Your task to perform on an android device: add a label to a message in the gmail app Image 0: 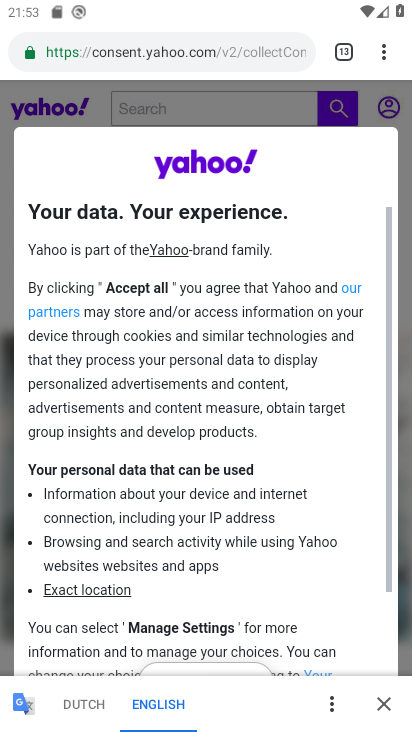
Step 0: press home button
Your task to perform on an android device: add a label to a message in the gmail app Image 1: 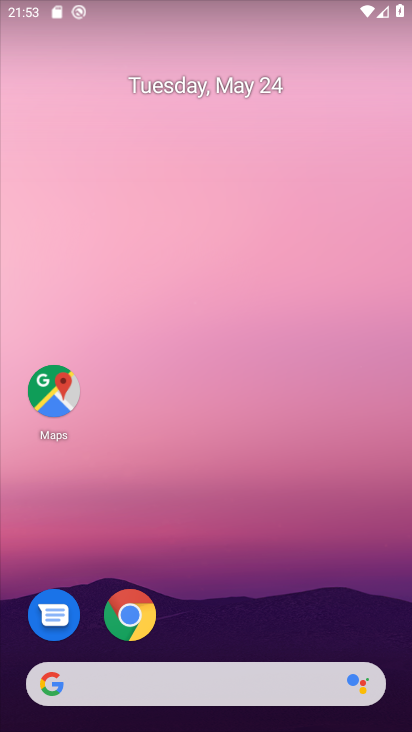
Step 1: drag from (211, 488) to (211, 254)
Your task to perform on an android device: add a label to a message in the gmail app Image 2: 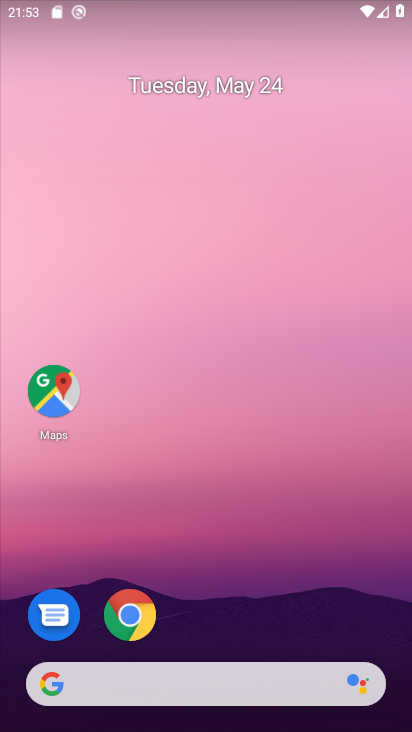
Step 2: drag from (273, 444) to (279, 281)
Your task to perform on an android device: add a label to a message in the gmail app Image 3: 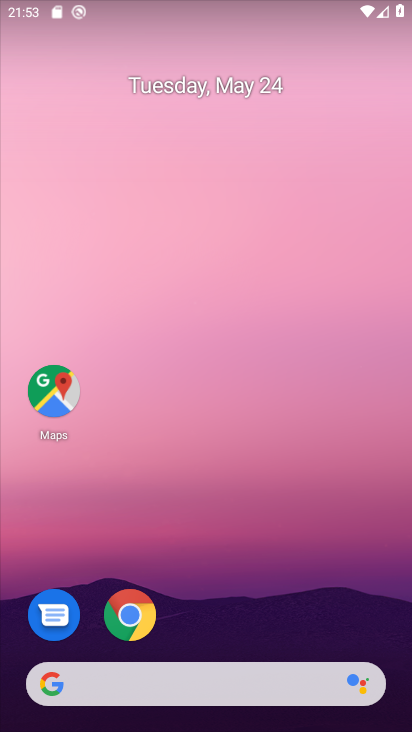
Step 3: drag from (236, 488) to (278, 197)
Your task to perform on an android device: add a label to a message in the gmail app Image 4: 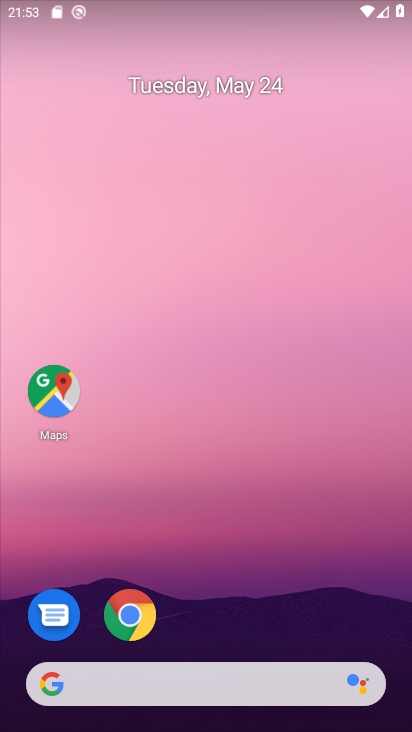
Step 4: drag from (203, 639) to (242, 273)
Your task to perform on an android device: add a label to a message in the gmail app Image 5: 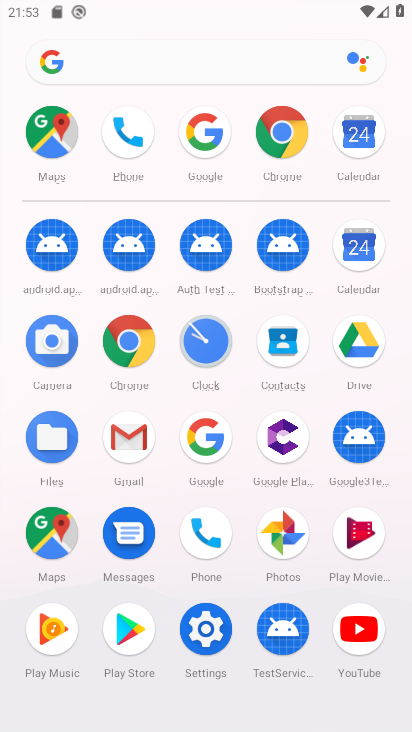
Step 5: click (133, 424)
Your task to perform on an android device: add a label to a message in the gmail app Image 6: 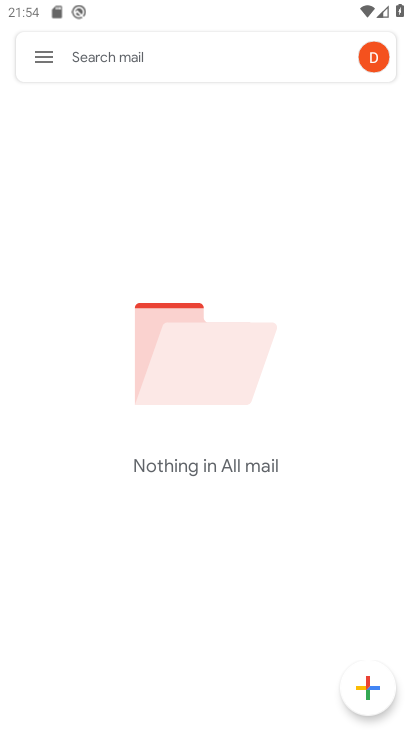
Step 6: task complete